Your task to perform on an android device: Go to accessibility settings Image 0: 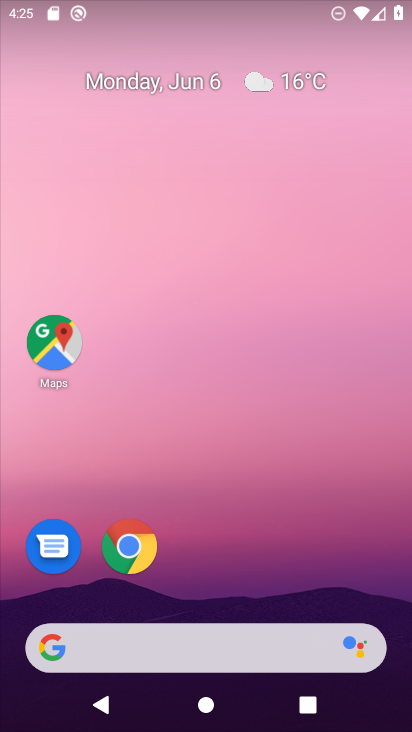
Step 0: drag from (261, 625) to (284, 113)
Your task to perform on an android device: Go to accessibility settings Image 1: 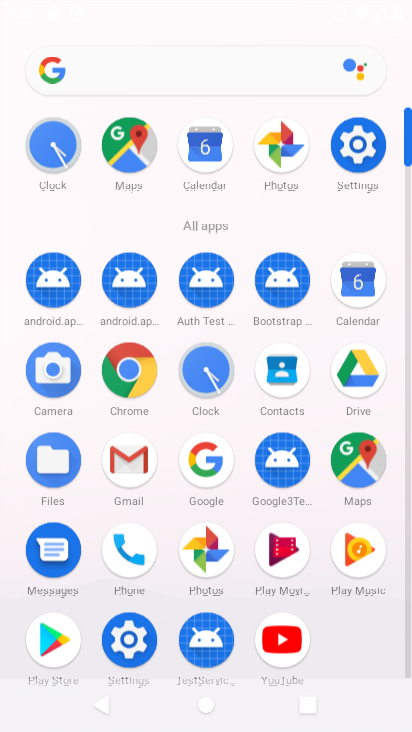
Step 1: click (342, 138)
Your task to perform on an android device: Go to accessibility settings Image 2: 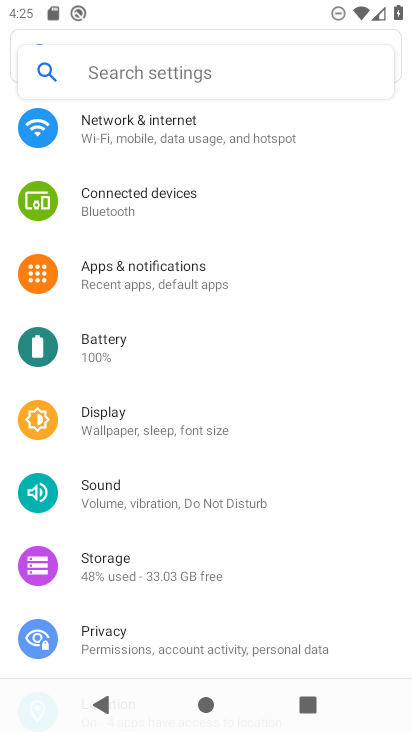
Step 2: drag from (270, 567) to (227, 81)
Your task to perform on an android device: Go to accessibility settings Image 3: 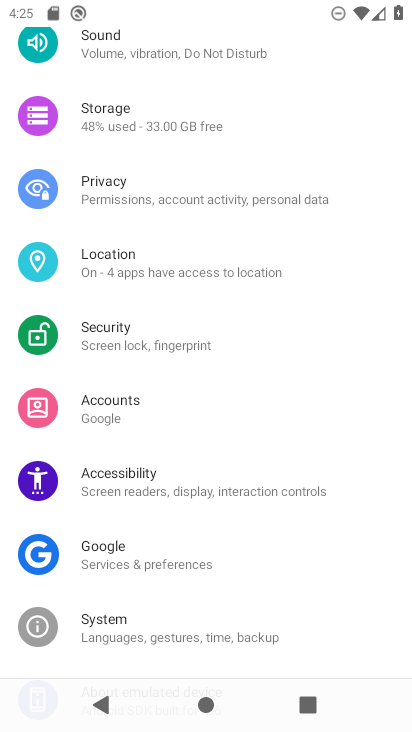
Step 3: click (149, 478)
Your task to perform on an android device: Go to accessibility settings Image 4: 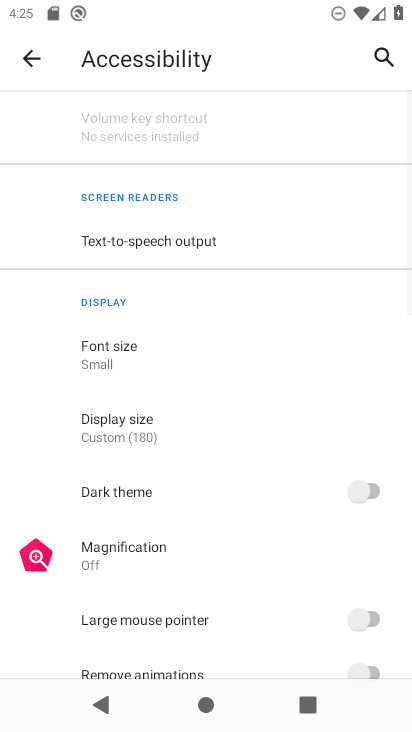
Step 4: task complete